Your task to perform on an android device: Add beats solo 3 to the cart on bestbuy.com, then select checkout. Image 0: 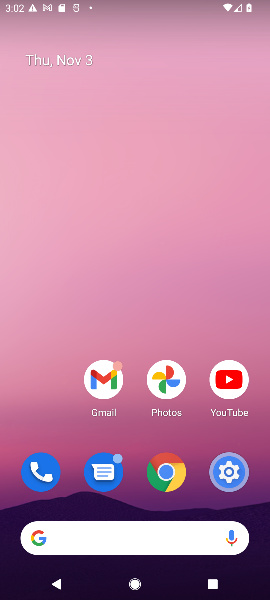
Step 0: press home button
Your task to perform on an android device: Add beats solo 3 to the cart on bestbuy.com, then select checkout. Image 1: 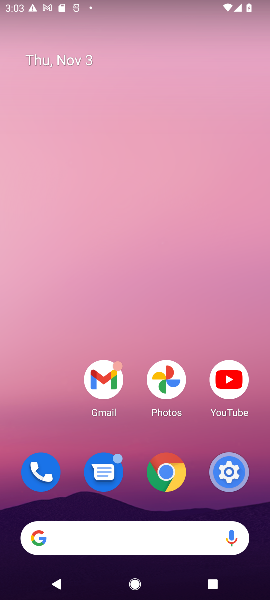
Step 1: click (155, 529)
Your task to perform on an android device: Add beats solo 3 to the cart on bestbuy.com, then select checkout. Image 2: 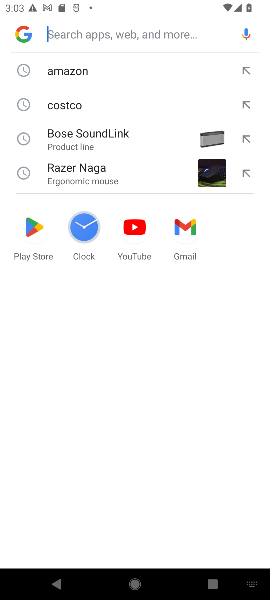
Step 2: type "besybuy"
Your task to perform on an android device: Add beats solo 3 to the cart on bestbuy.com, then select checkout. Image 3: 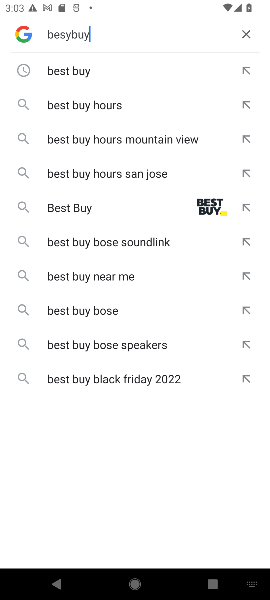
Step 3: click (204, 209)
Your task to perform on an android device: Add beats solo 3 to the cart on bestbuy.com, then select checkout. Image 4: 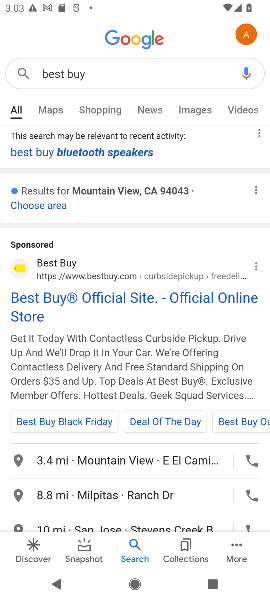
Step 4: click (108, 297)
Your task to perform on an android device: Add beats solo 3 to the cart on bestbuy.com, then select checkout. Image 5: 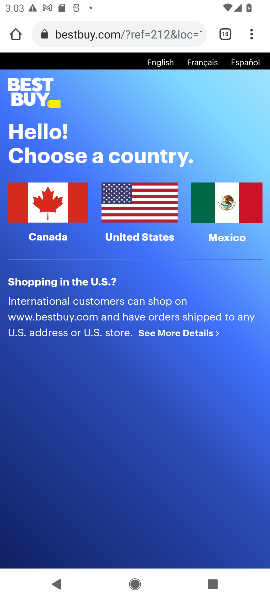
Step 5: click (213, 217)
Your task to perform on an android device: Add beats solo 3 to the cart on bestbuy.com, then select checkout. Image 6: 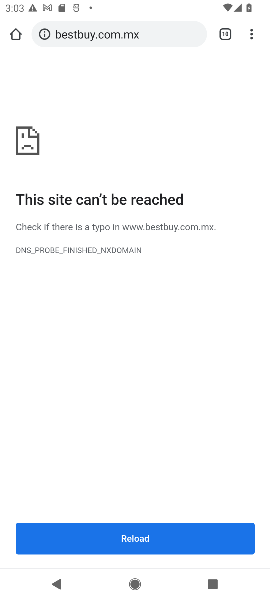
Step 6: click (131, 533)
Your task to perform on an android device: Add beats solo 3 to the cart on bestbuy.com, then select checkout. Image 7: 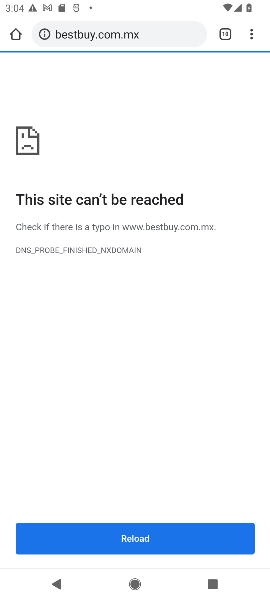
Step 7: click (14, 33)
Your task to perform on an android device: Add beats solo 3 to the cart on bestbuy.com, then select checkout. Image 8: 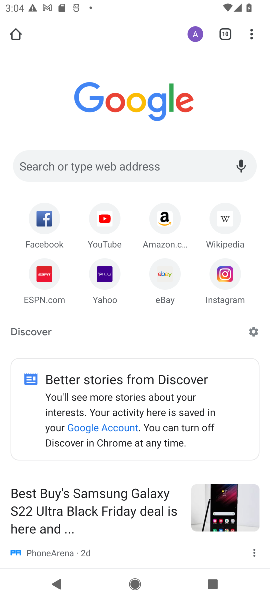
Step 8: click (117, 153)
Your task to perform on an android device: Add beats solo 3 to the cart on bestbuy.com, then select checkout. Image 9: 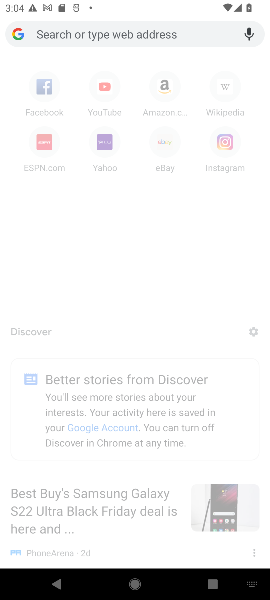
Step 9: type "bestbuy"
Your task to perform on an android device: Add beats solo 3 to the cart on bestbuy.com, then select checkout. Image 10: 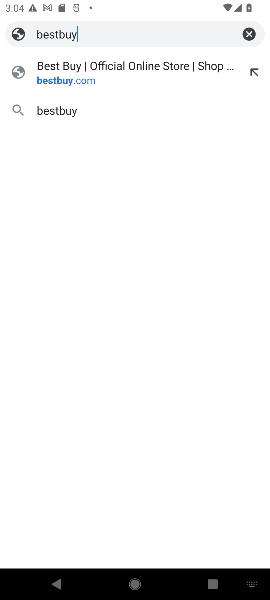
Step 10: click (116, 82)
Your task to perform on an android device: Add beats solo 3 to the cart on bestbuy.com, then select checkout. Image 11: 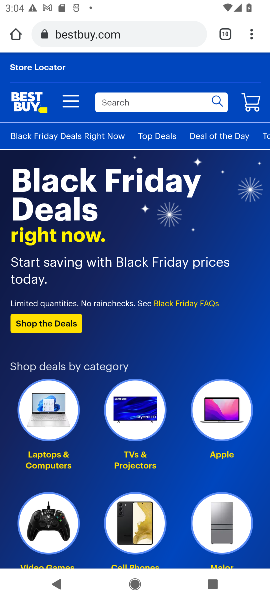
Step 11: click (131, 101)
Your task to perform on an android device: Add beats solo 3 to the cart on bestbuy.com, then select checkout. Image 12: 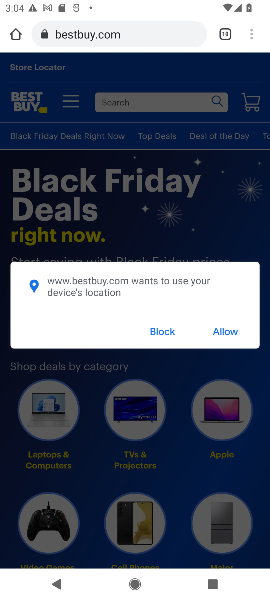
Step 12: type "beat solo 3"
Your task to perform on an android device: Add beats solo 3 to the cart on bestbuy.com, then select checkout. Image 13: 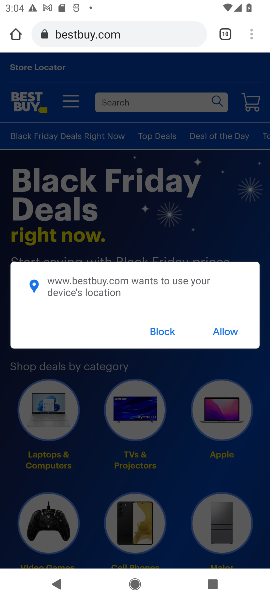
Step 13: click (168, 328)
Your task to perform on an android device: Add beats solo 3 to the cart on bestbuy.com, then select checkout. Image 14: 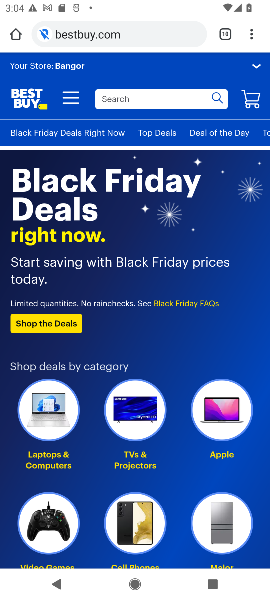
Step 14: click (146, 103)
Your task to perform on an android device: Add beats solo 3 to the cart on bestbuy.com, then select checkout. Image 15: 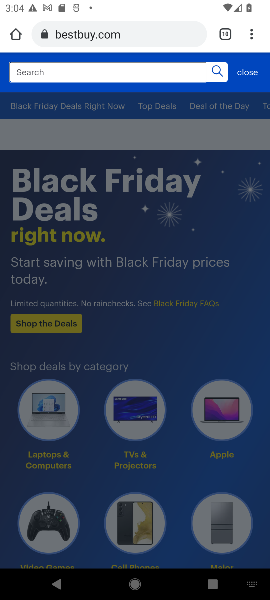
Step 15: type "beats solo 3"
Your task to perform on an android device: Add beats solo 3 to the cart on bestbuy.com, then select checkout. Image 16: 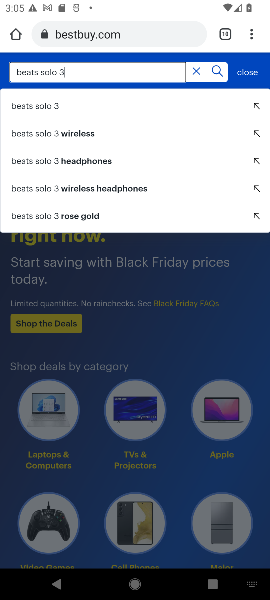
Step 16: click (116, 100)
Your task to perform on an android device: Add beats solo 3 to the cart on bestbuy.com, then select checkout. Image 17: 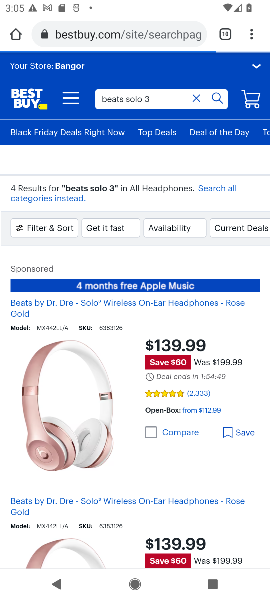
Step 17: click (165, 343)
Your task to perform on an android device: Add beats solo 3 to the cart on bestbuy.com, then select checkout. Image 18: 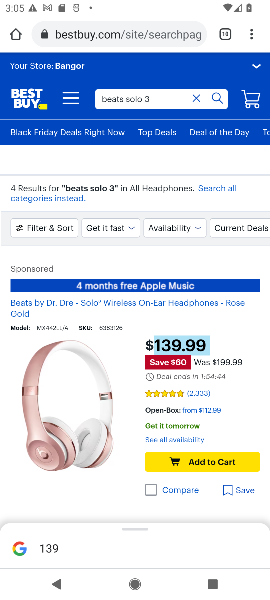
Step 18: click (222, 463)
Your task to perform on an android device: Add beats solo 3 to the cart on bestbuy.com, then select checkout. Image 19: 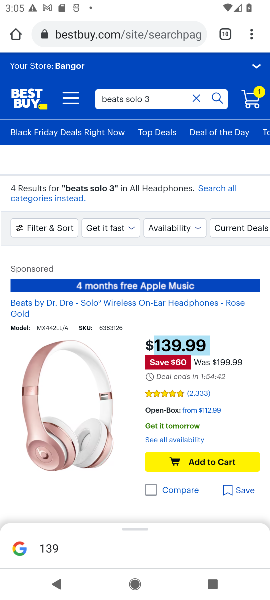
Step 19: task complete